Your task to perform on an android device: Open Google Maps and go to "Timeline" Image 0: 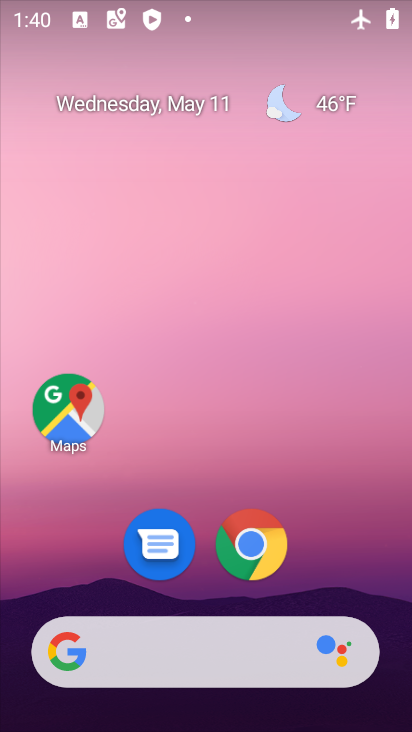
Step 0: click (66, 409)
Your task to perform on an android device: Open Google Maps and go to "Timeline" Image 1: 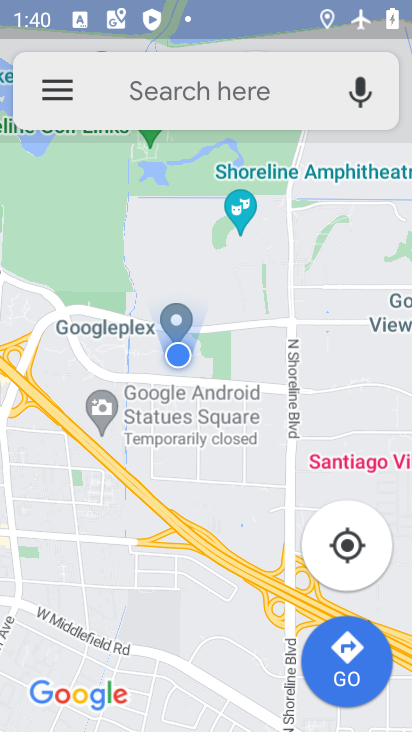
Step 1: click (53, 88)
Your task to perform on an android device: Open Google Maps and go to "Timeline" Image 2: 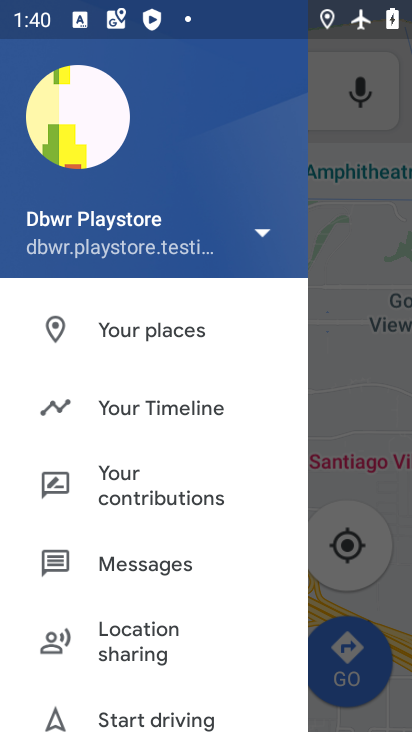
Step 2: click (171, 410)
Your task to perform on an android device: Open Google Maps and go to "Timeline" Image 3: 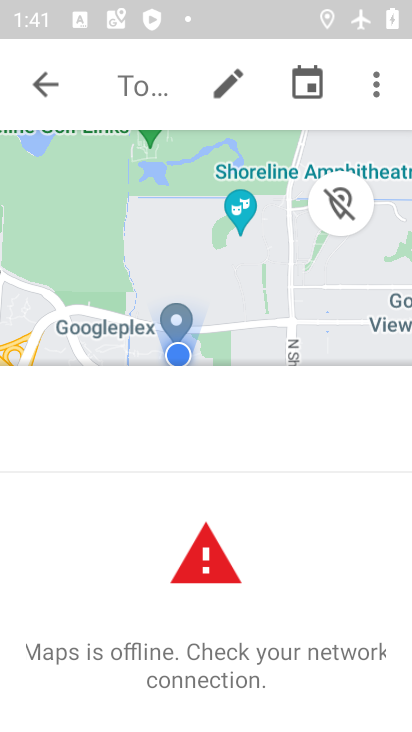
Step 3: task complete